Your task to perform on an android device: turn on sleep mode Image 0: 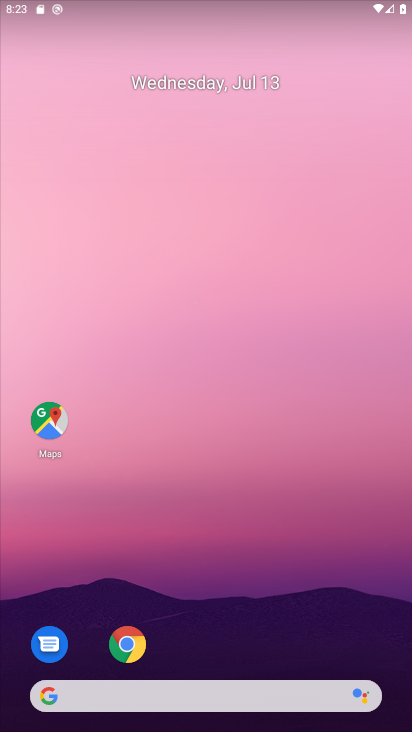
Step 0: drag from (291, 609) to (368, 151)
Your task to perform on an android device: turn on sleep mode Image 1: 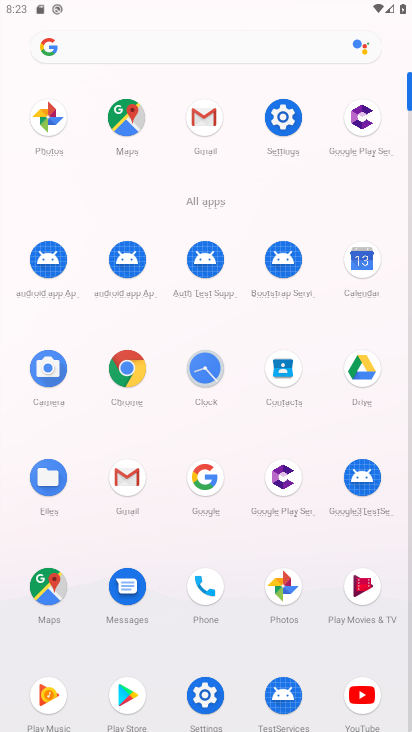
Step 1: click (279, 118)
Your task to perform on an android device: turn on sleep mode Image 2: 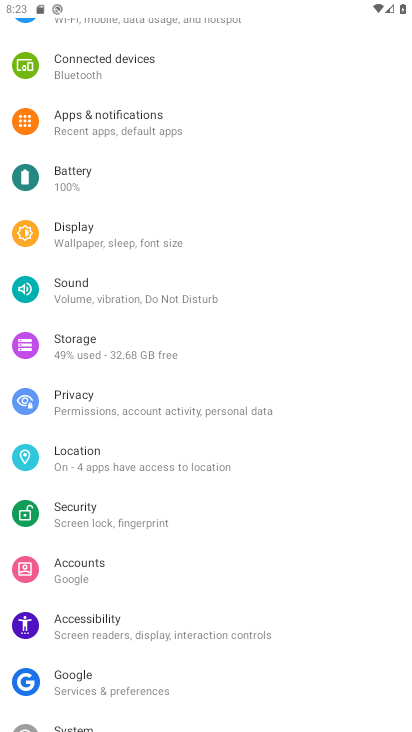
Step 2: click (154, 229)
Your task to perform on an android device: turn on sleep mode Image 3: 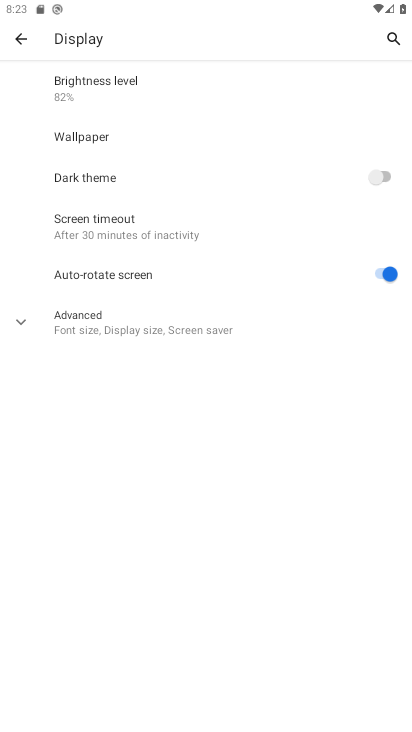
Step 3: click (114, 315)
Your task to perform on an android device: turn on sleep mode Image 4: 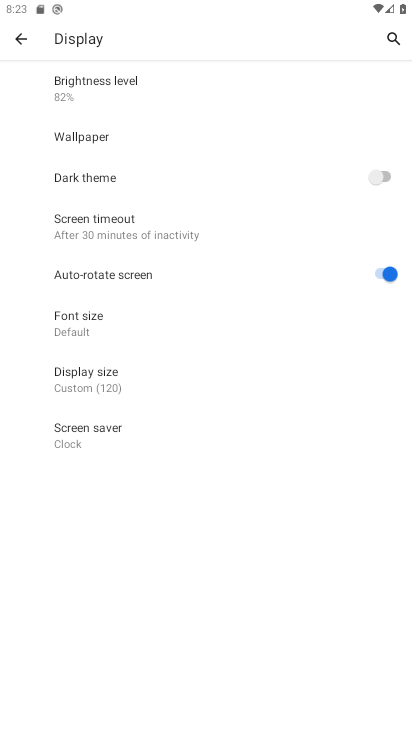
Step 4: task complete